Your task to perform on an android device: Open my contact list Image 0: 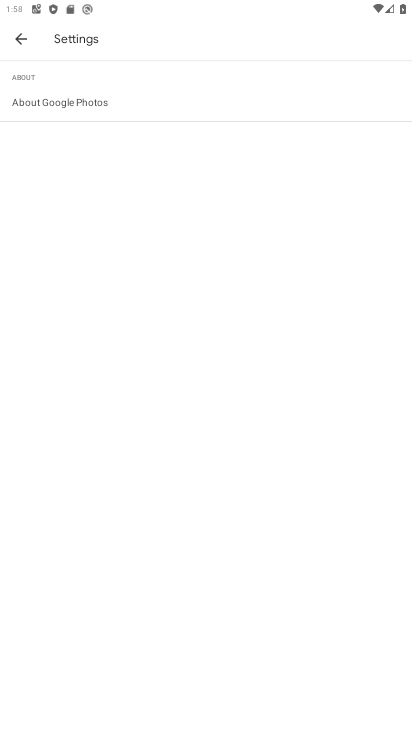
Step 0: press home button
Your task to perform on an android device: Open my contact list Image 1: 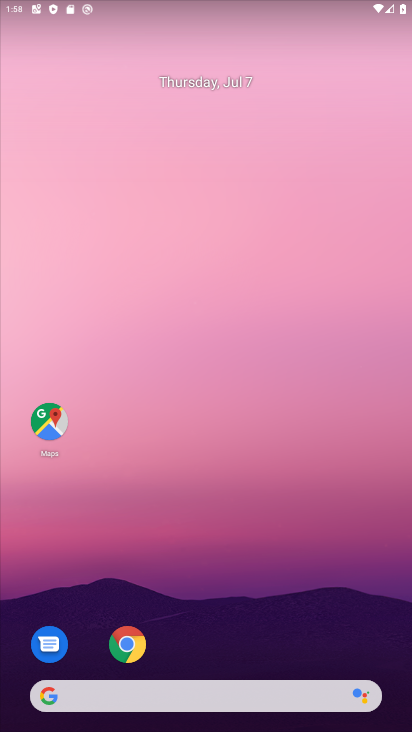
Step 1: drag from (192, 415) to (177, 354)
Your task to perform on an android device: Open my contact list Image 2: 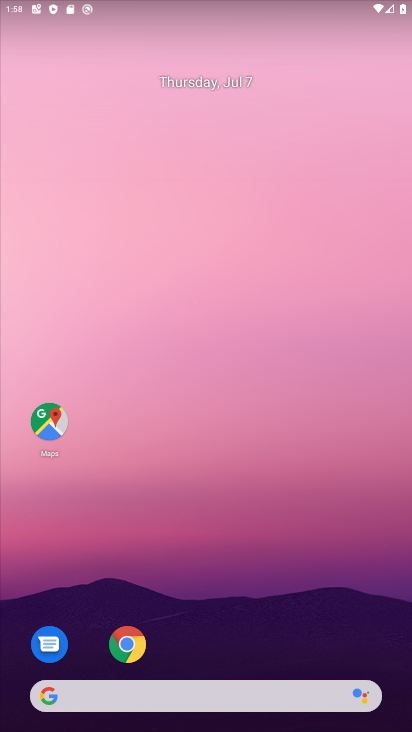
Step 2: drag from (232, 686) to (167, 164)
Your task to perform on an android device: Open my contact list Image 3: 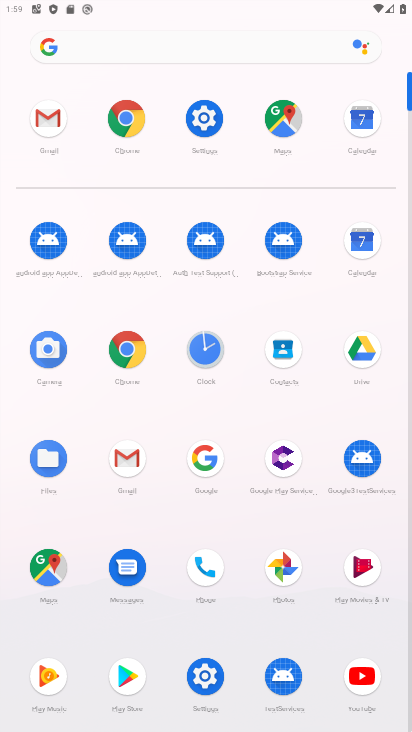
Step 3: click (293, 363)
Your task to perform on an android device: Open my contact list Image 4: 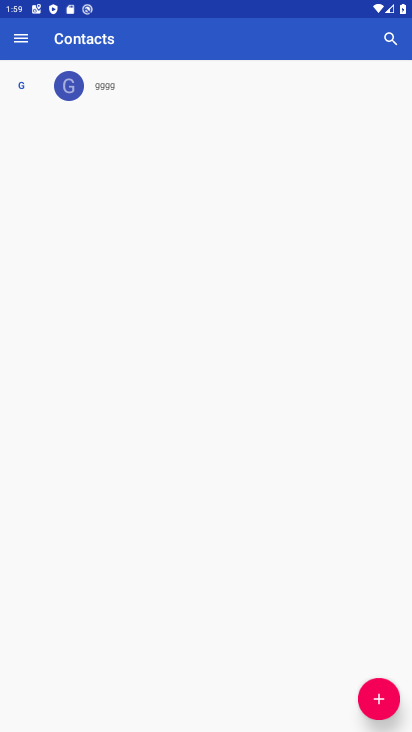
Step 4: task complete